Your task to perform on an android device: What's on the menu at Chick-fil-A? Image 0: 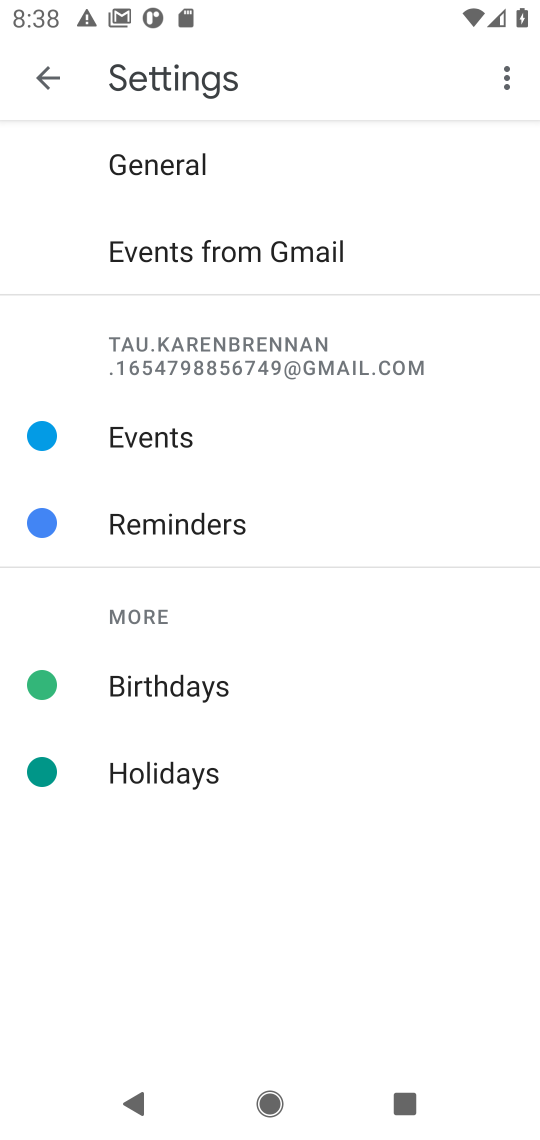
Step 0: press home button
Your task to perform on an android device: What's on the menu at Chick-fil-A? Image 1: 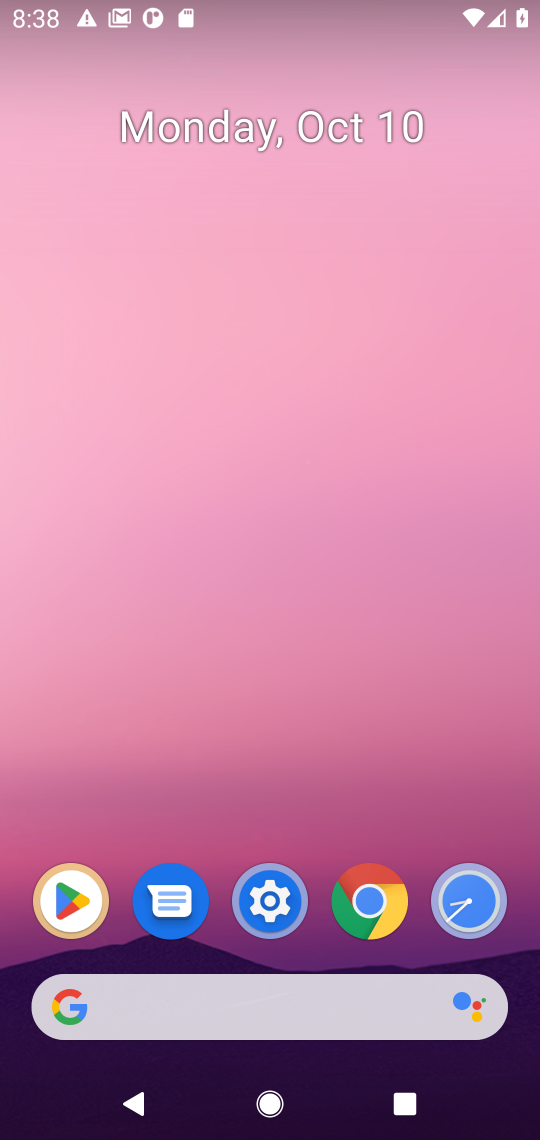
Step 1: click (192, 1007)
Your task to perform on an android device: What's on the menu at Chick-fil-A? Image 2: 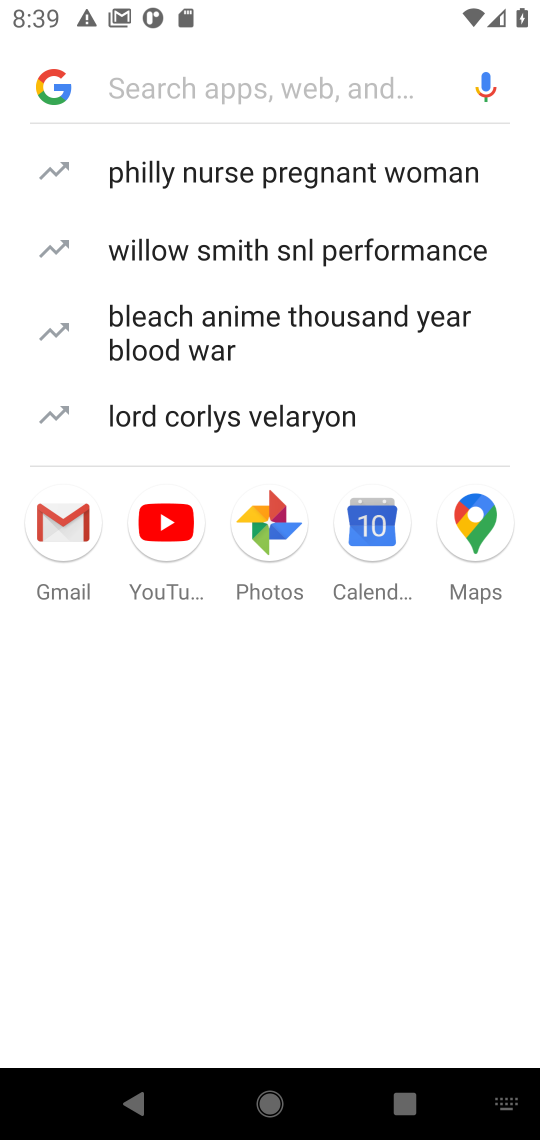
Step 2: type "What's on the menu at Chick-fil-A"
Your task to perform on an android device: What's on the menu at Chick-fil-A? Image 3: 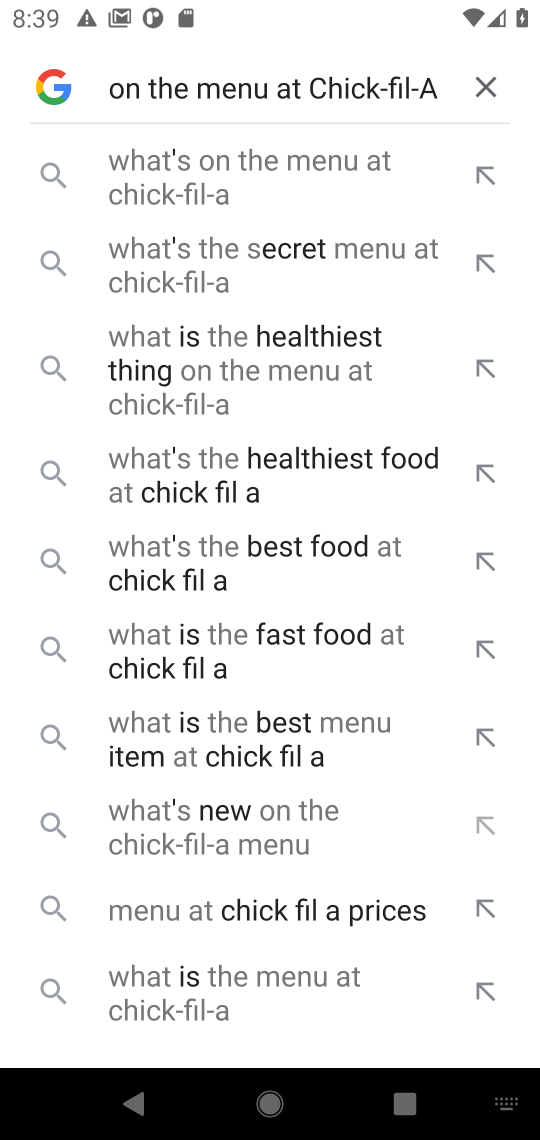
Step 3: press enter
Your task to perform on an android device: What's on the menu at Chick-fil-A? Image 4: 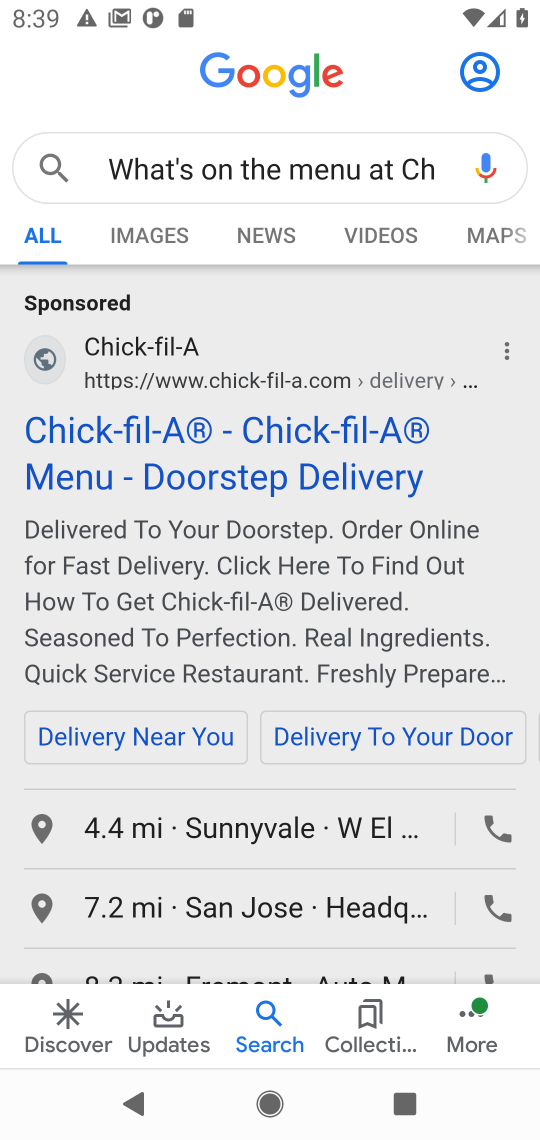
Step 4: click (348, 459)
Your task to perform on an android device: What's on the menu at Chick-fil-A? Image 5: 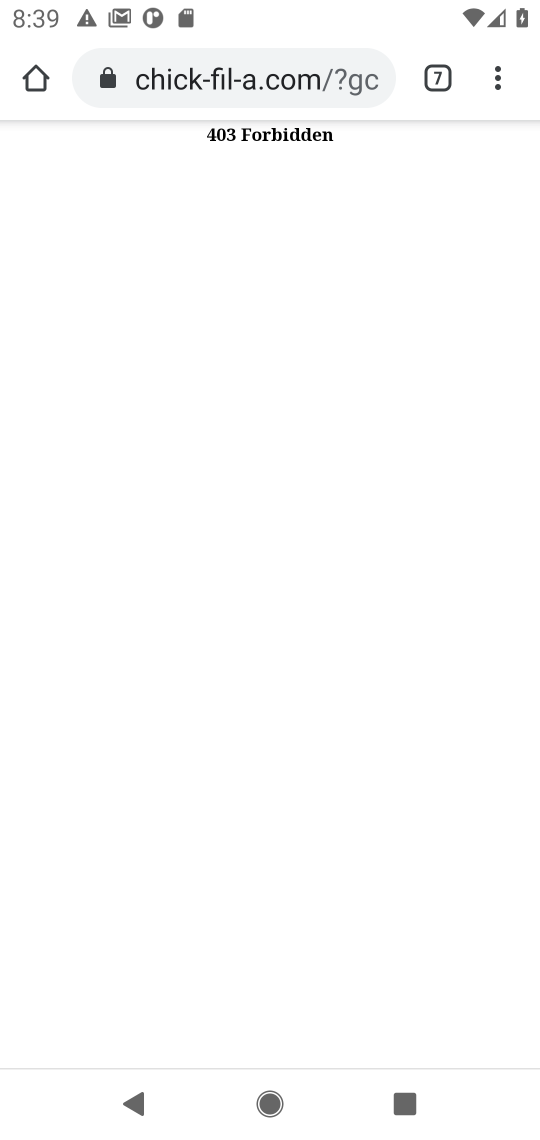
Step 5: press back button
Your task to perform on an android device: What's on the menu at Chick-fil-A? Image 6: 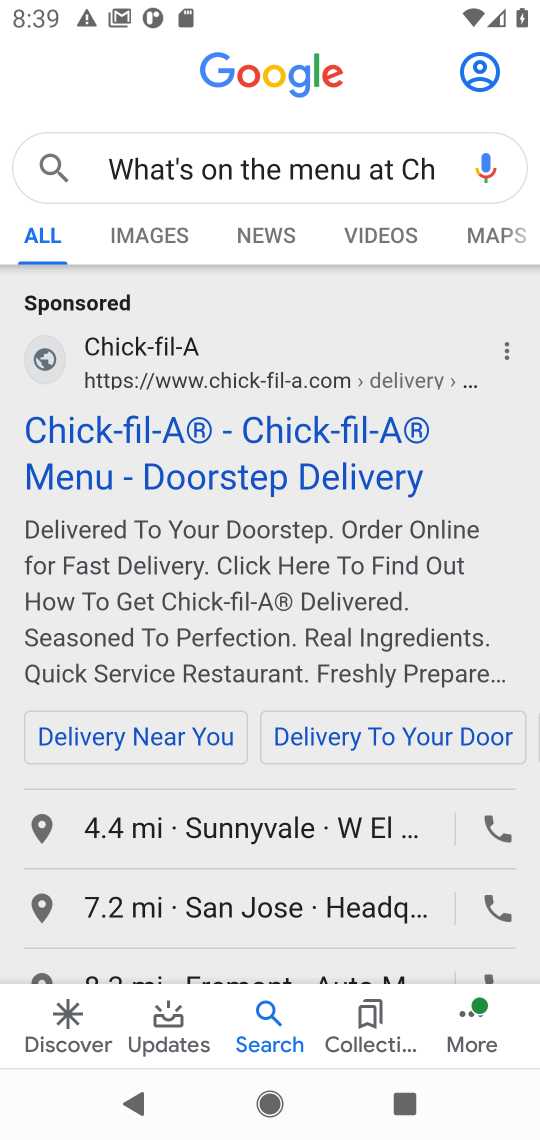
Step 6: drag from (332, 787) to (375, 446)
Your task to perform on an android device: What's on the menu at Chick-fil-A? Image 7: 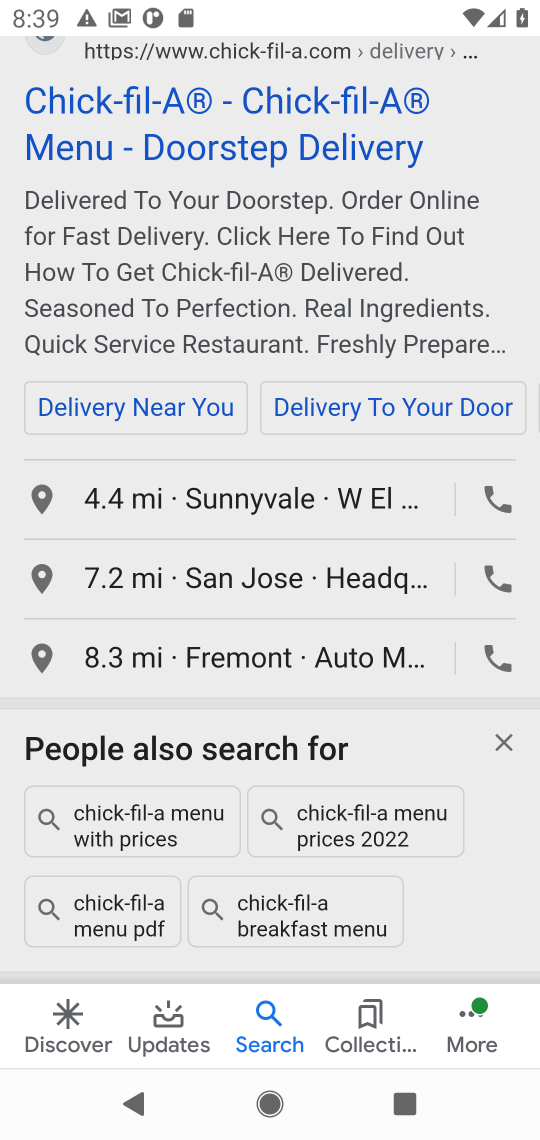
Step 7: drag from (314, 874) to (339, 347)
Your task to perform on an android device: What's on the menu at Chick-fil-A? Image 8: 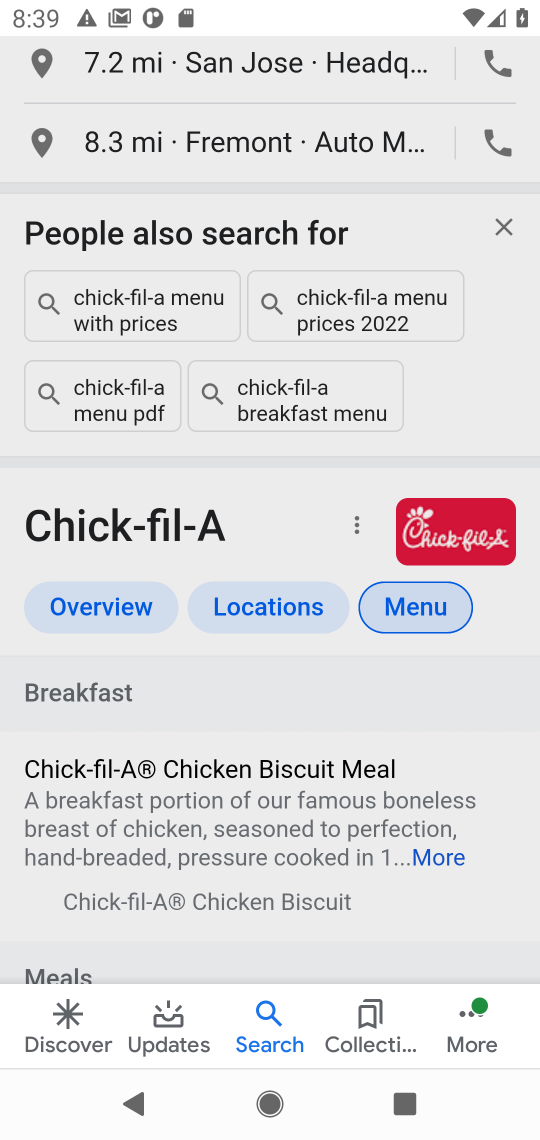
Step 8: click (416, 613)
Your task to perform on an android device: What's on the menu at Chick-fil-A? Image 9: 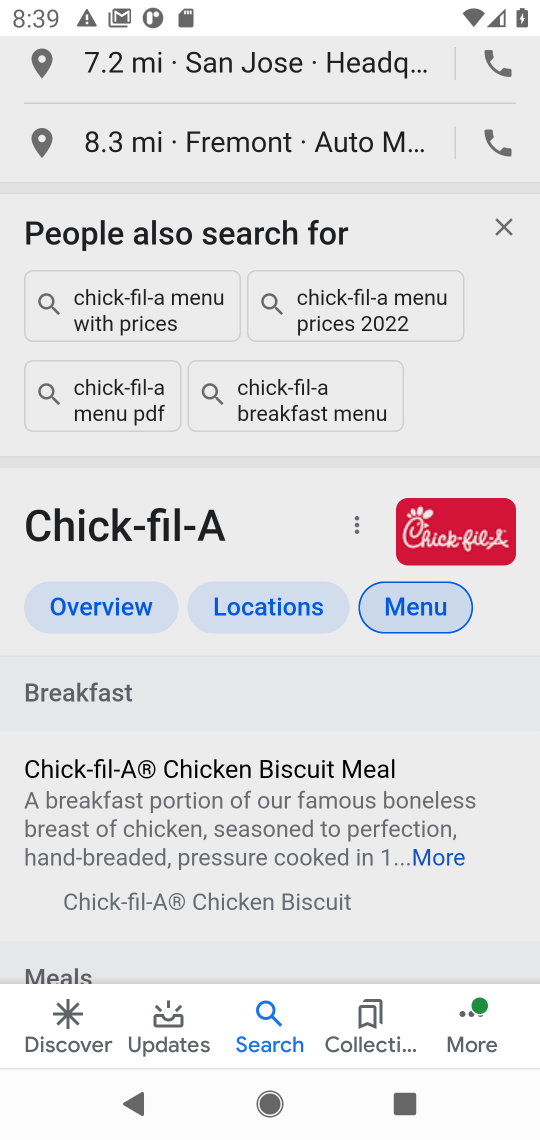
Step 9: drag from (341, 768) to (361, 258)
Your task to perform on an android device: What's on the menu at Chick-fil-A? Image 10: 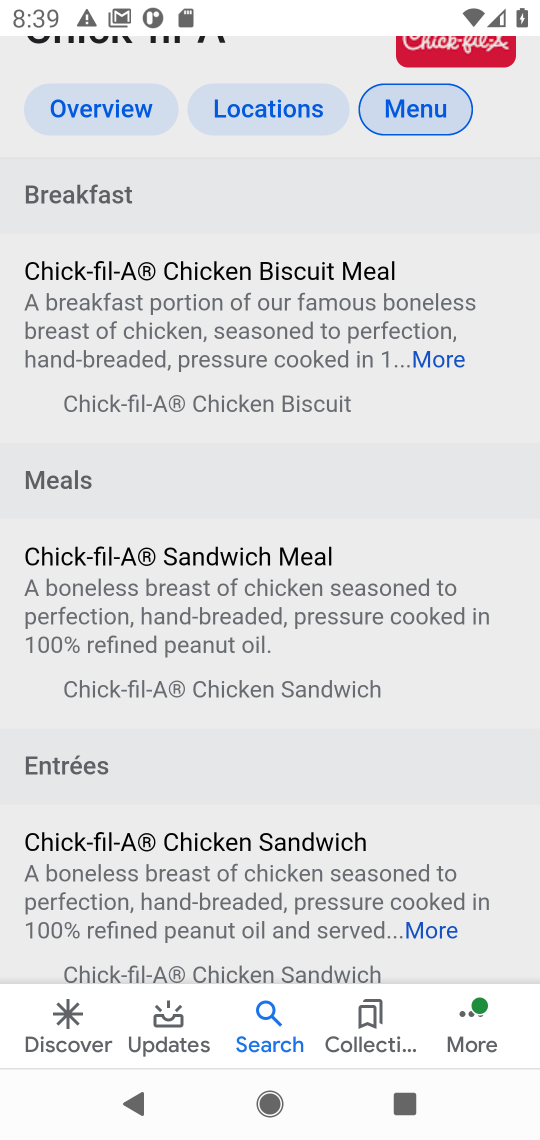
Step 10: drag from (394, 820) to (408, 378)
Your task to perform on an android device: What's on the menu at Chick-fil-A? Image 11: 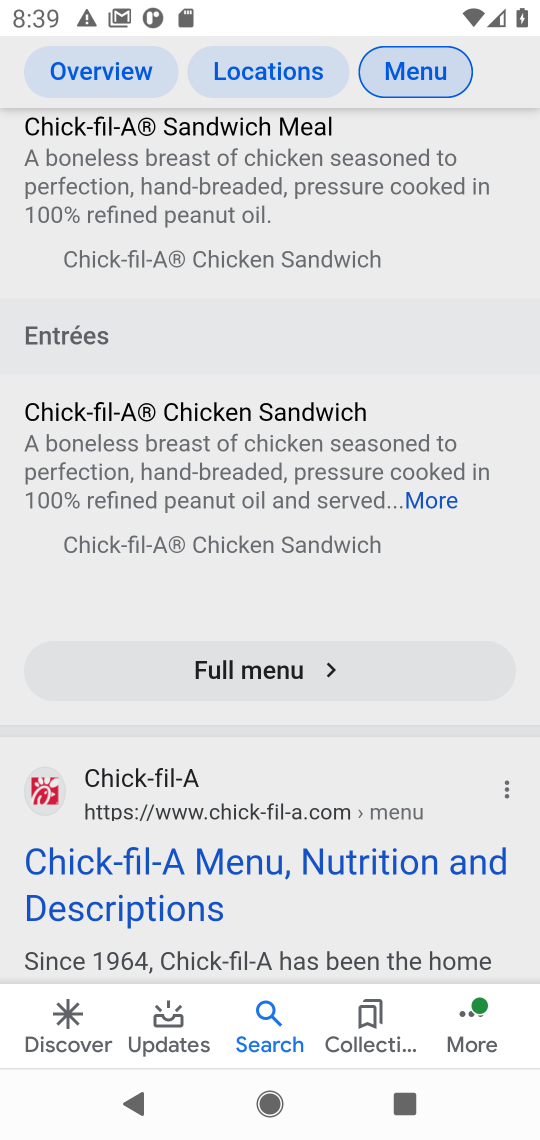
Step 11: click (286, 672)
Your task to perform on an android device: What's on the menu at Chick-fil-A? Image 12: 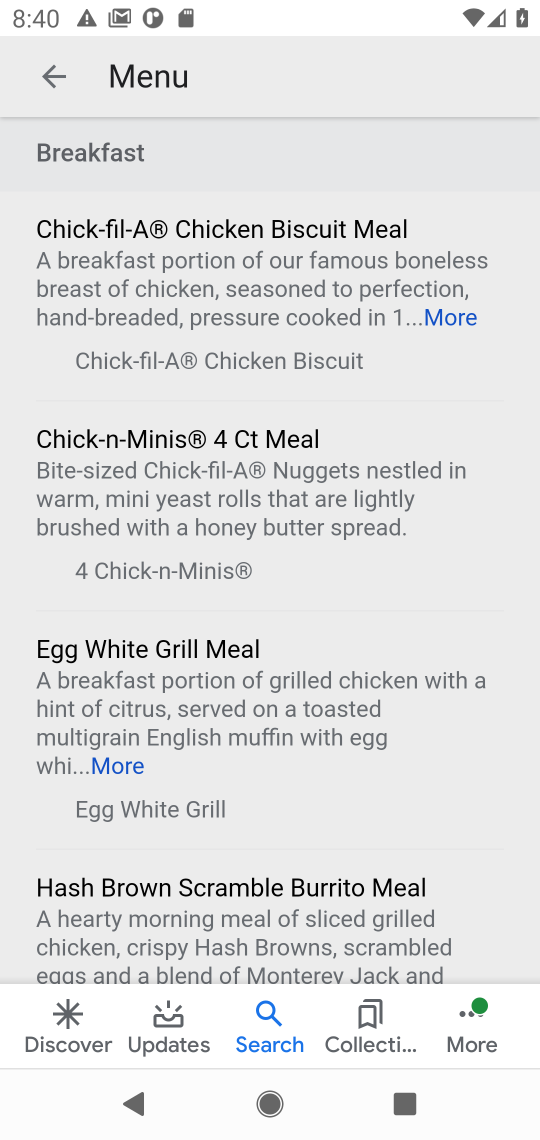
Step 12: task complete